Your task to perform on an android device: Do I have any events today? Image 0: 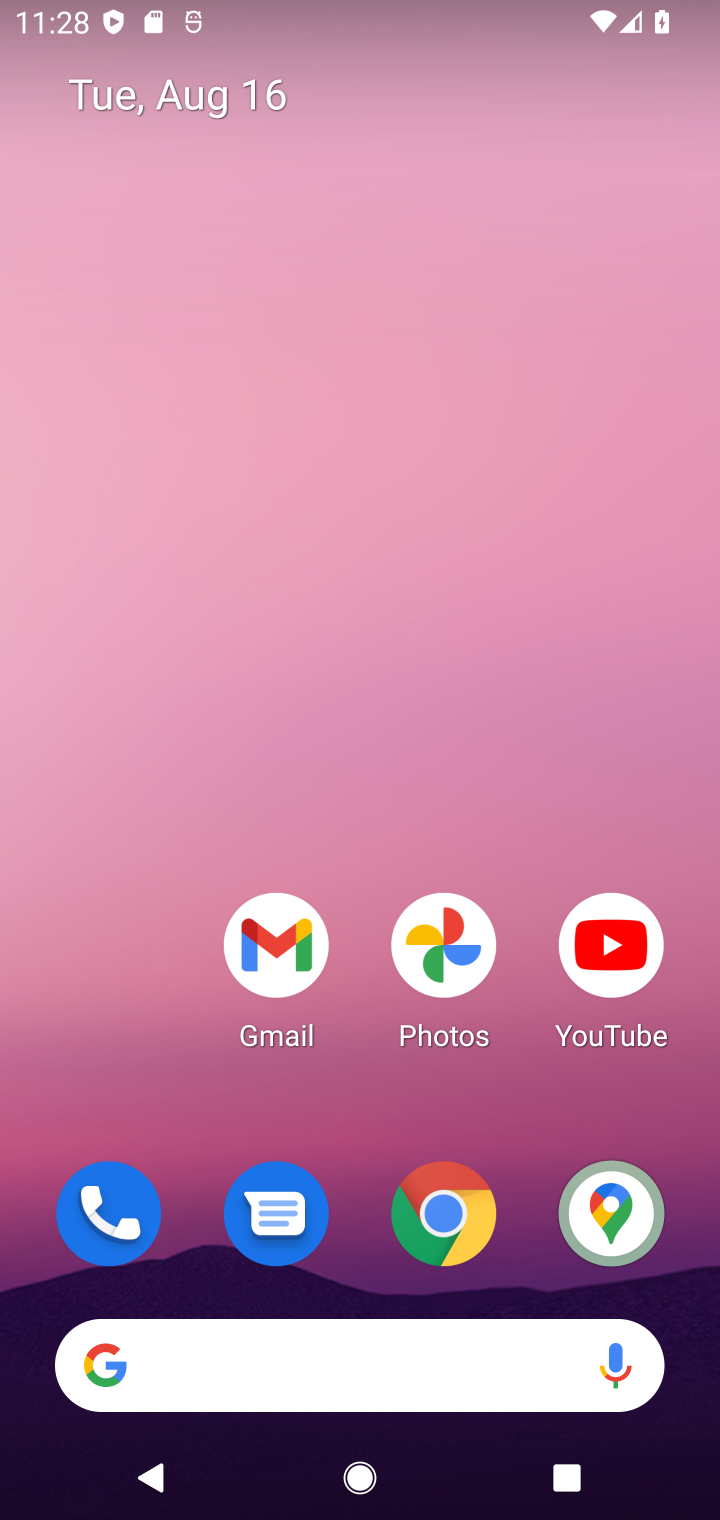
Step 0: drag from (365, 879) to (438, 68)
Your task to perform on an android device: Do I have any events today? Image 1: 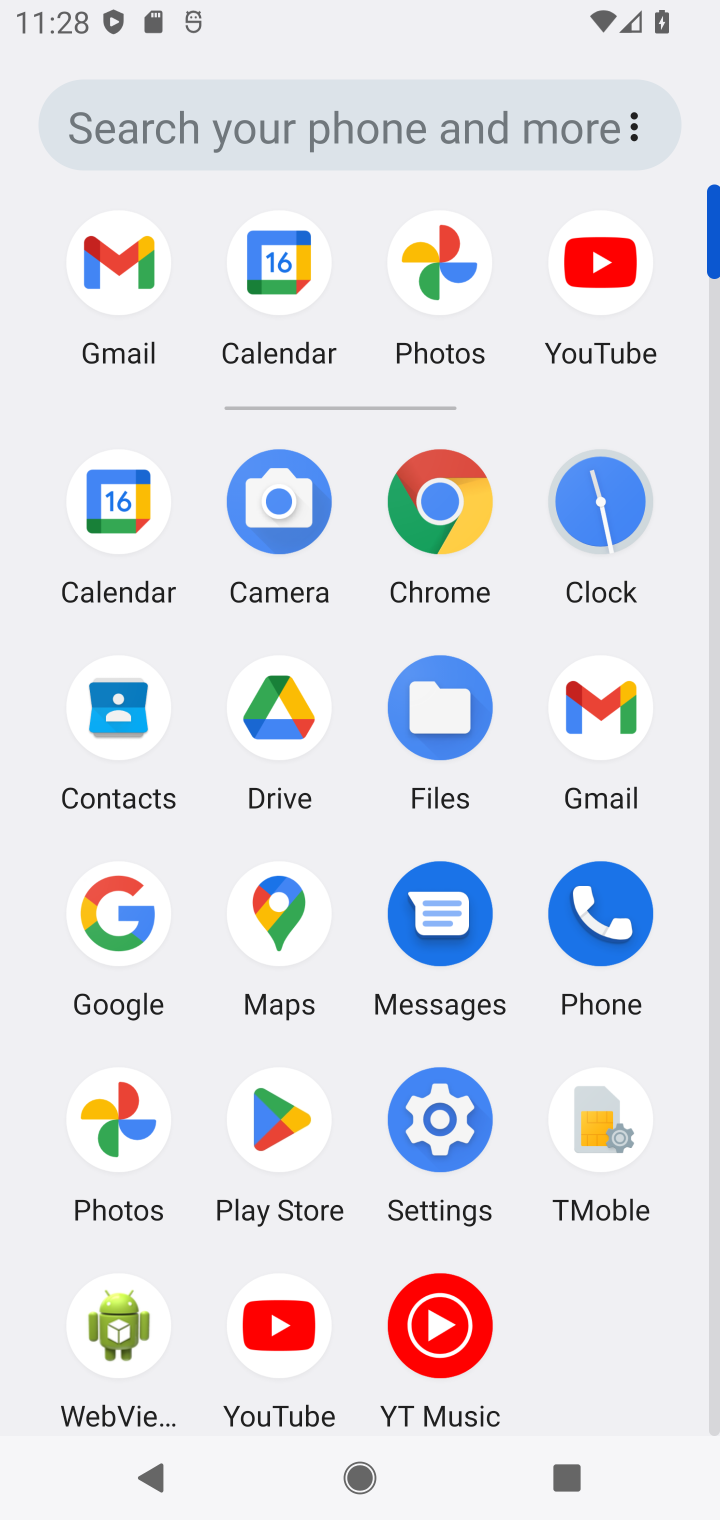
Step 1: click (91, 497)
Your task to perform on an android device: Do I have any events today? Image 2: 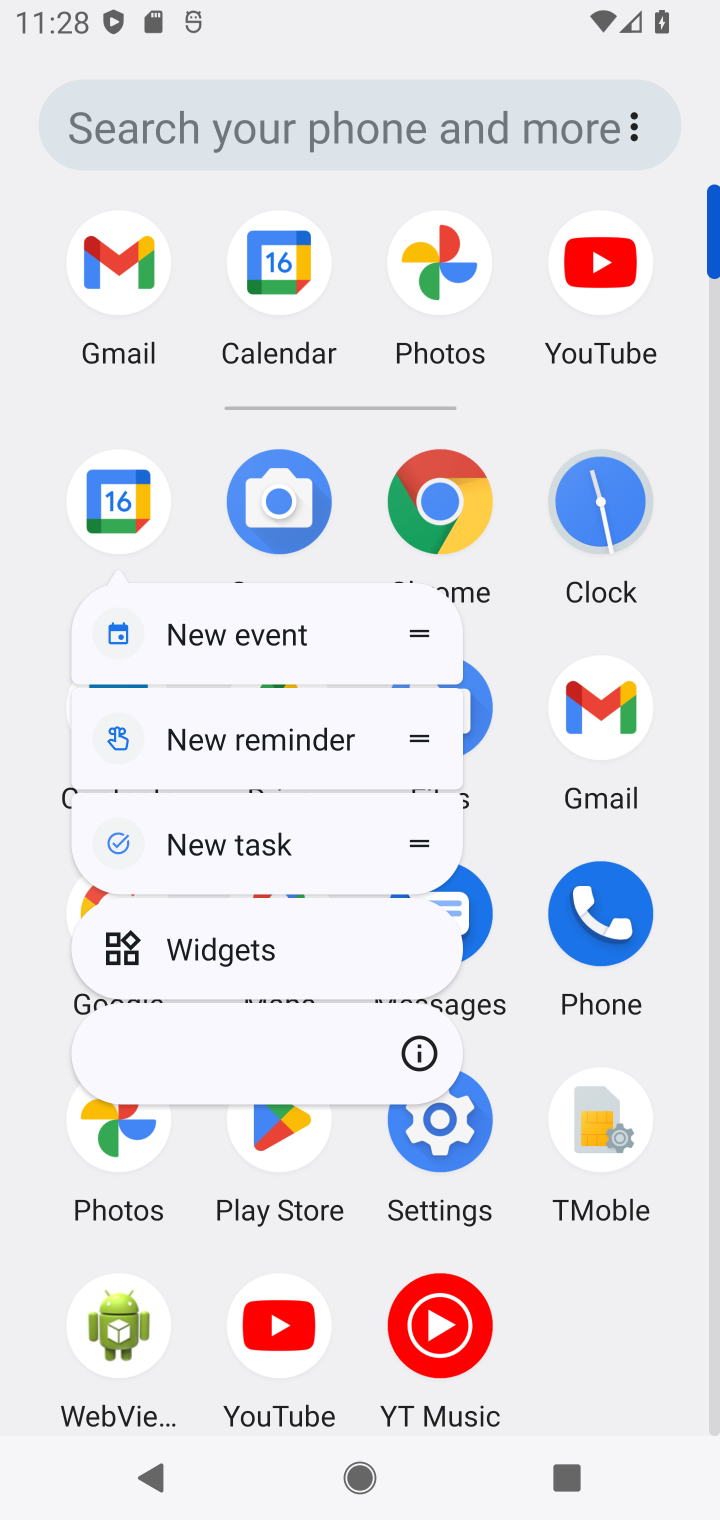
Step 2: click (118, 513)
Your task to perform on an android device: Do I have any events today? Image 3: 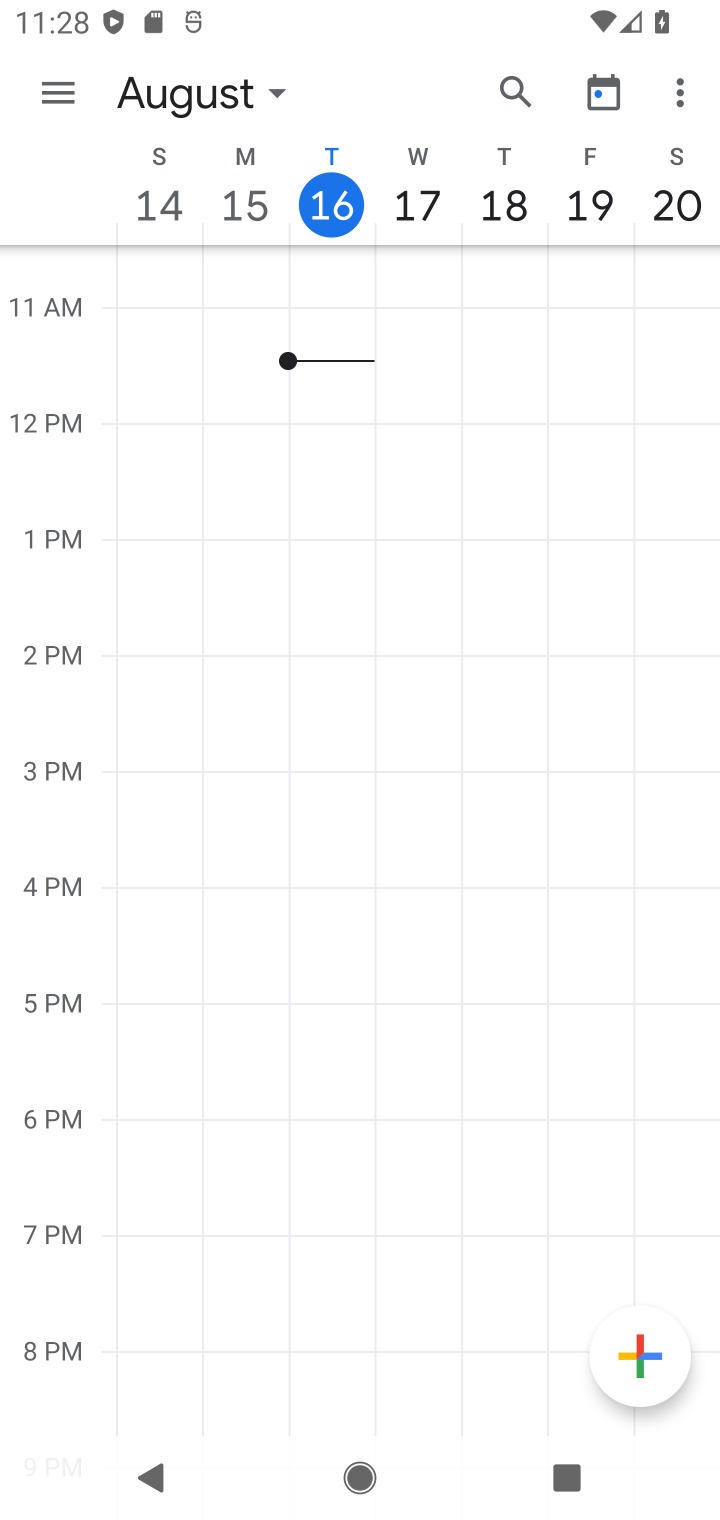
Step 3: click (358, 178)
Your task to perform on an android device: Do I have any events today? Image 4: 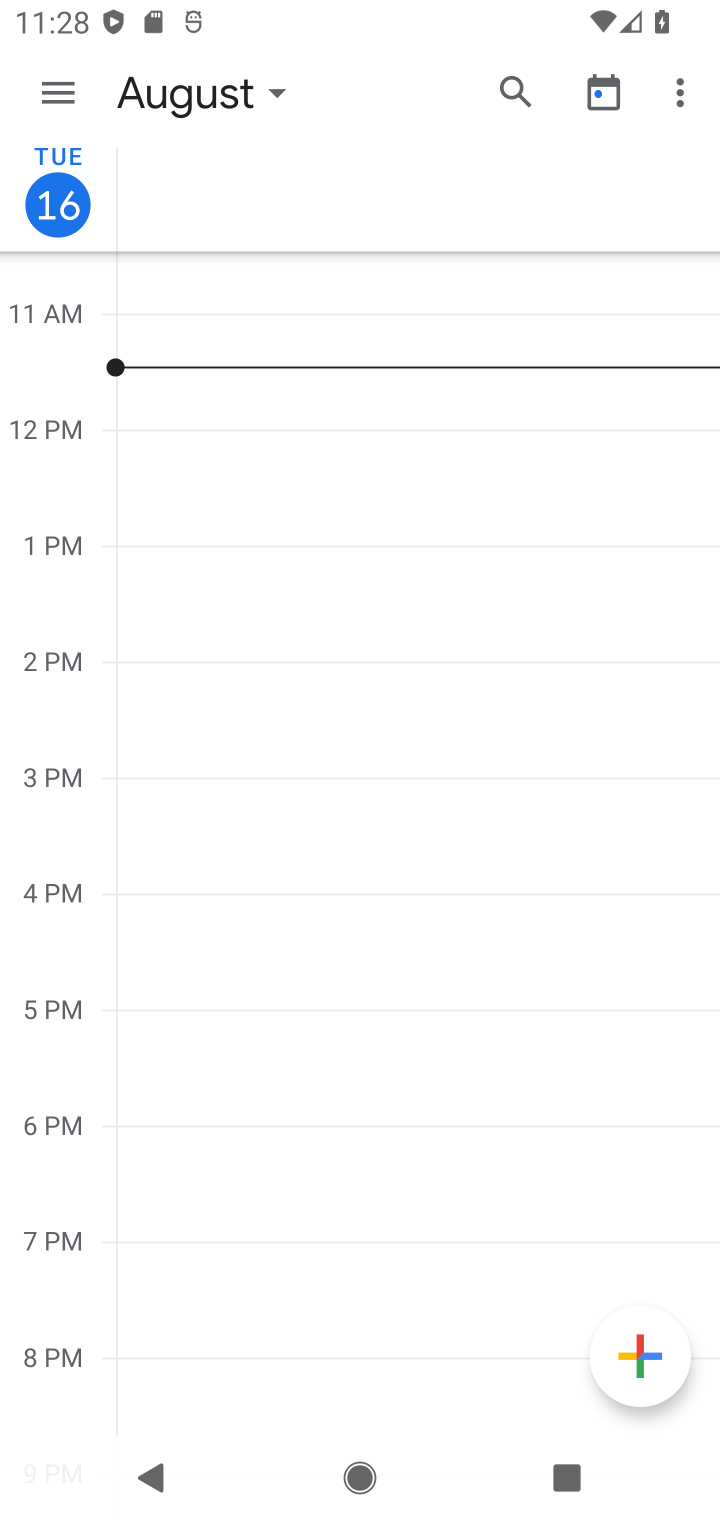
Step 4: task complete